Your task to perform on an android device: Open battery settings Image 0: 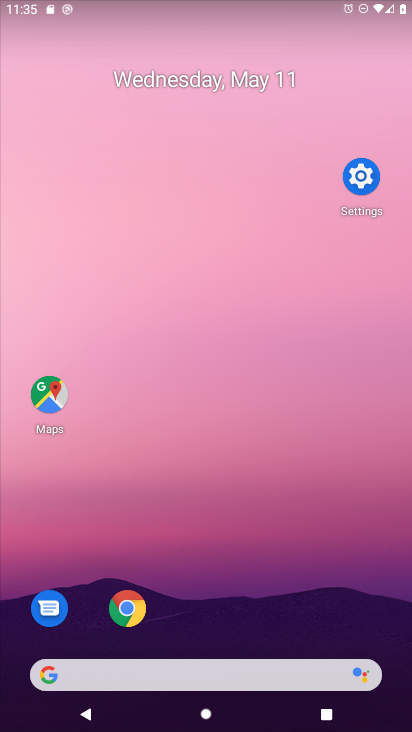
Step 0: drag from (242, 552) to (112, 230)
Your task to perform on an android device: Open battery settings Image 1: 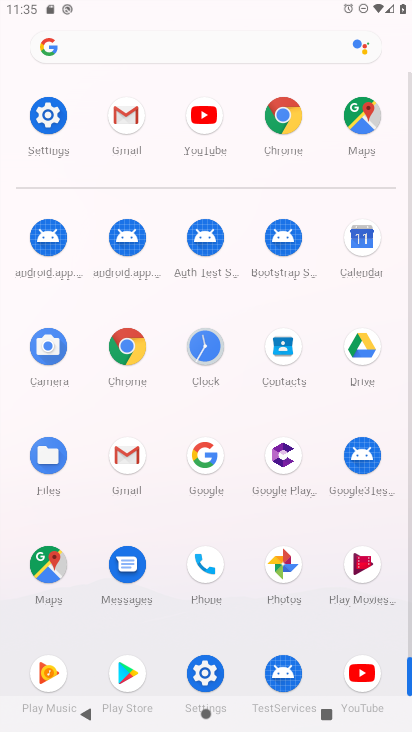
Step 1: click (38, 112)
Your task to perform on an android device: Open battery settings Image 2: 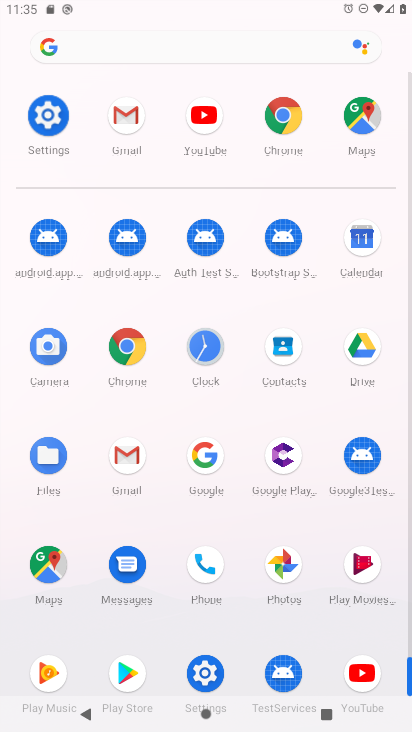
Step 2: click (36, 108)
Your task to perform on an android device: Open battery settings Image 3: 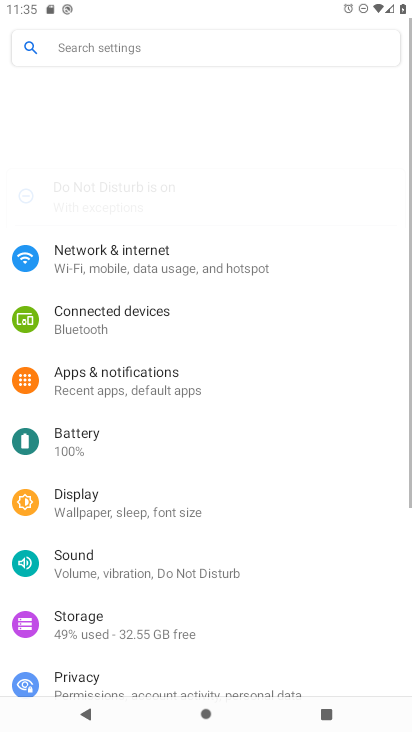
Step 3: click (32, 105)
Your task to perform on an android device: Open battery settings Image 4: 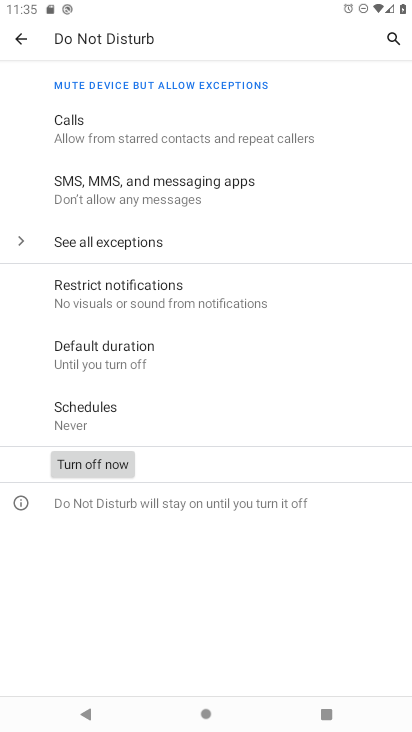
Step 4: click (81, 505)
Your task to perform on an android device: Open battery settings Image 5: 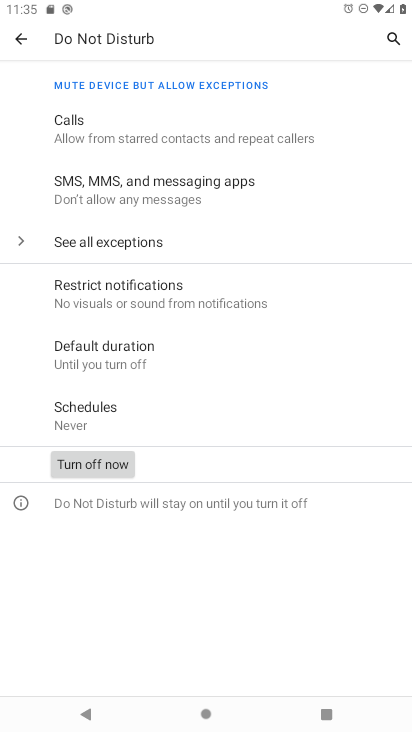
Step 5: click (22, 37)
Your task to perform on an android device: Open battery settings Image 6: 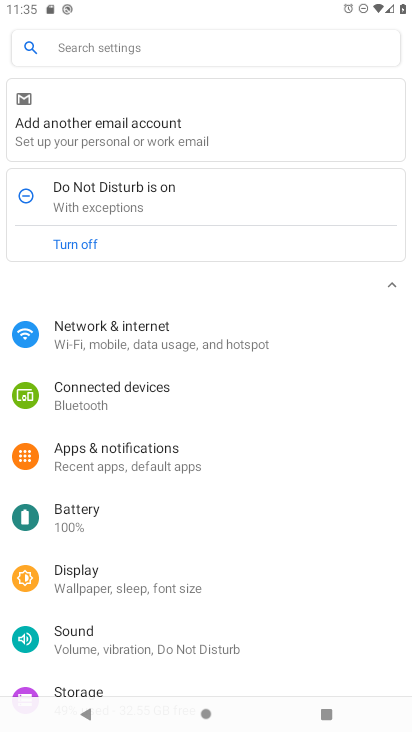
Step 6: click (80, 508)
Your task to perform on an android device: Open battery settings Image 7: 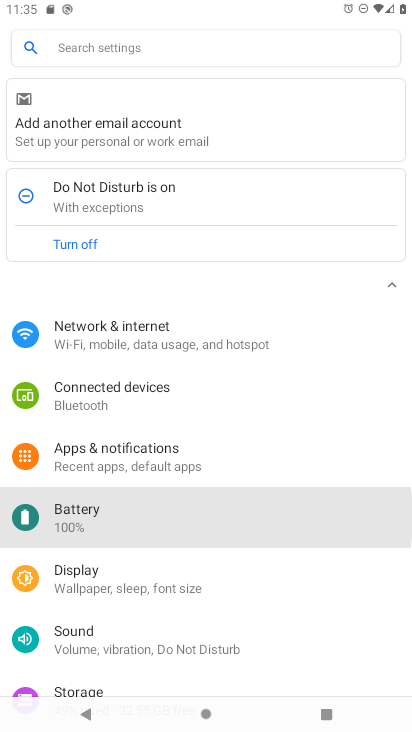
Step 7: click (76, 508)
Your task to perform on an android device: Open battery settings Image 8: 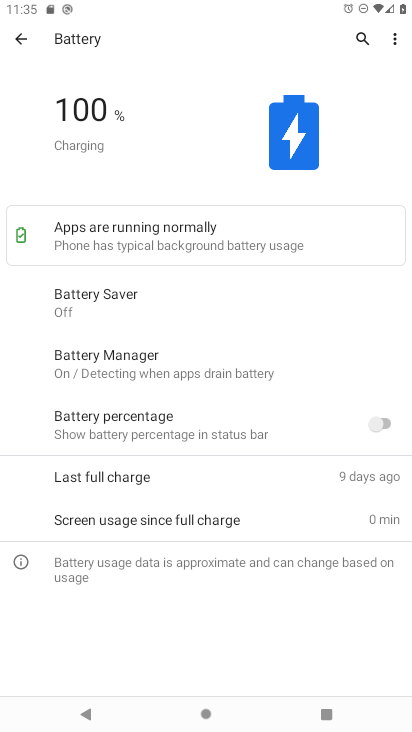
Step 8: task complete